Your task to perform on an android device: What's on my calendar today? Image 0: 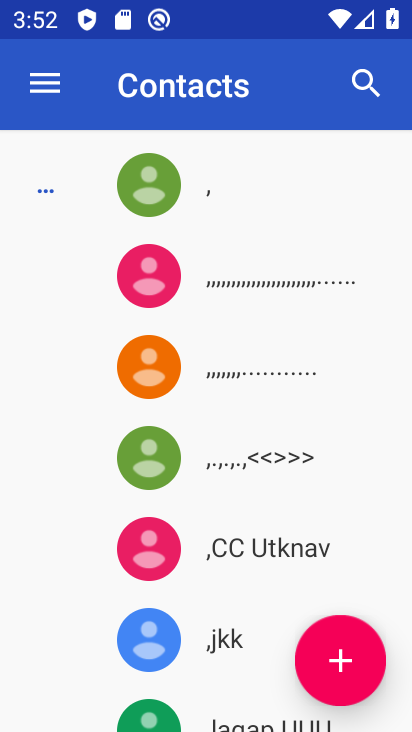
Step 0: press home button
Your task to perform on an android device: What's on my calendar today? Image 1: 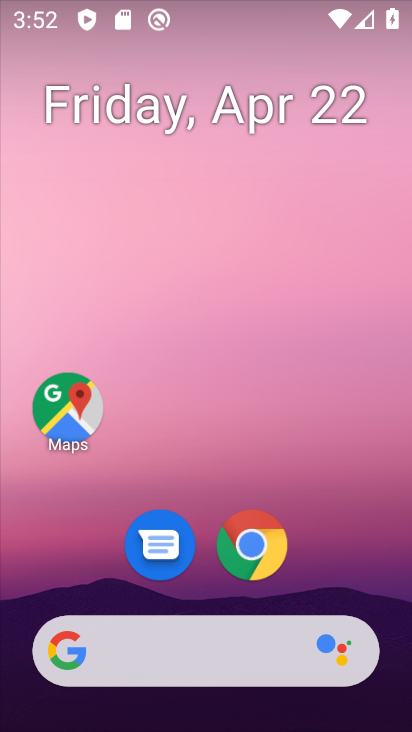
Step 1: drag from (214, 605) to (194, 233)
Your task to perform on an android device: What's on my calendar today? Image 2: 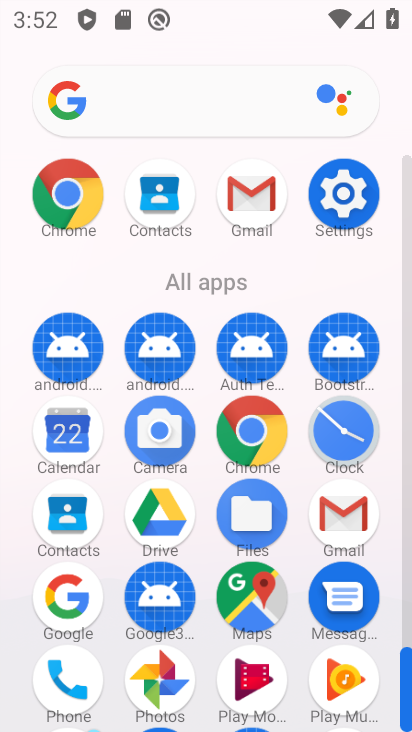
Step 2: click (83, 441)
Your task to perform on an android device: What's on my calendar today? Image 3: 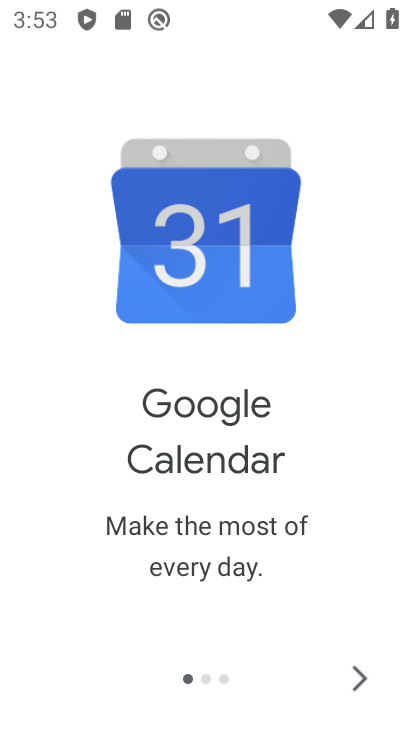
Step 3: click (344, 664)
Your task to perform on an android device: What's on my calendar today? Image 4: 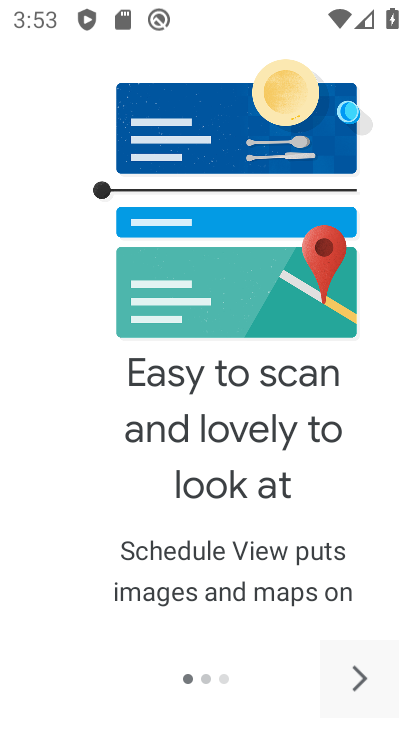
Step 4: click (344, 663)
Your task to perform on an android device: What's on my calendar today? Image 5: 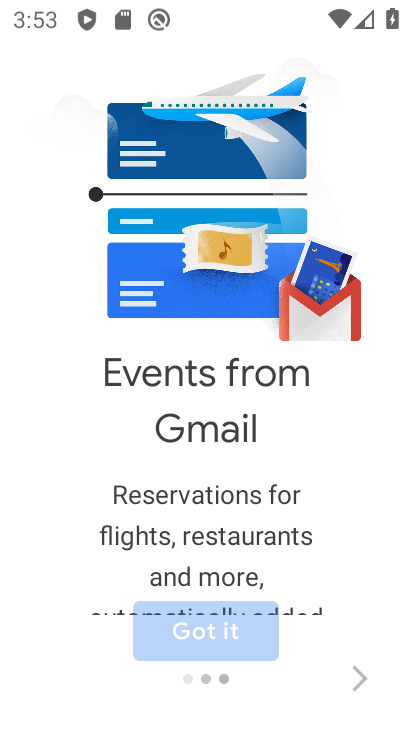
Step 5: click (344, 663)
Your task to perform on an android device: What's on my calendar today? Image 6: 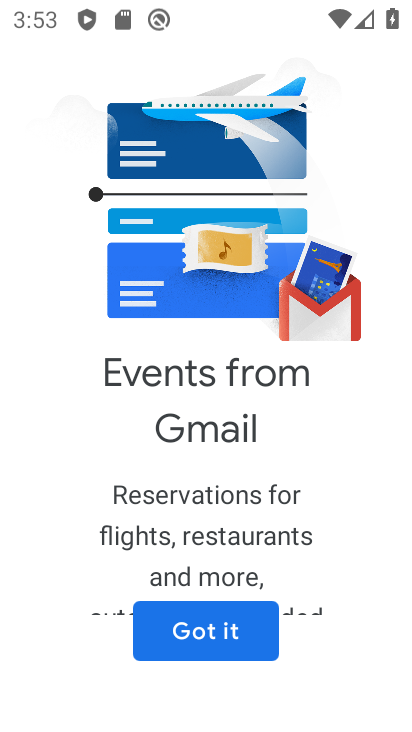
Step 6: click (256, 621)
Your task to perform on an android device: What's on my calendar today? Image 7: 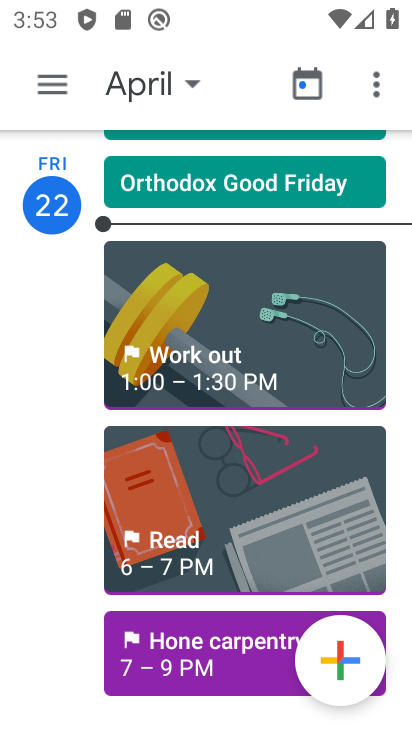
Step 7: click (47, 93)
Your task to perform on an android device: What's on my calendar today? Image 8: 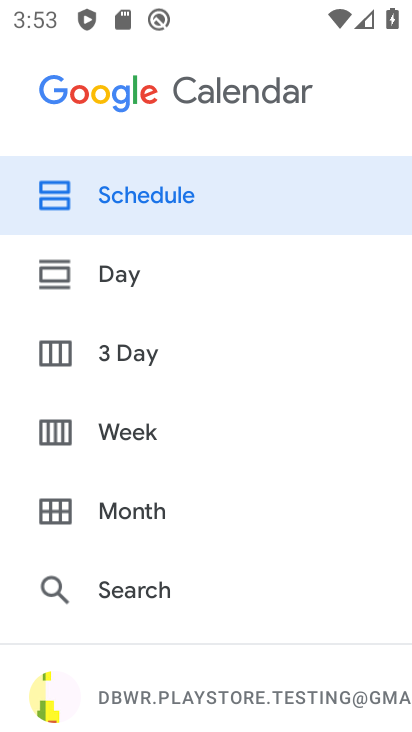
Step 8: click (218, 275)
Your task to perform on an android device: What's on my calendar today? Image 9: 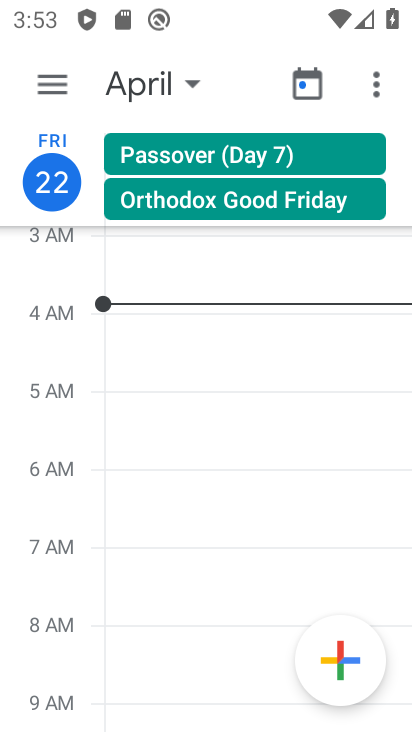
Step 9: task complete